Your task to perform on an android device: Open notification settings Image 0: 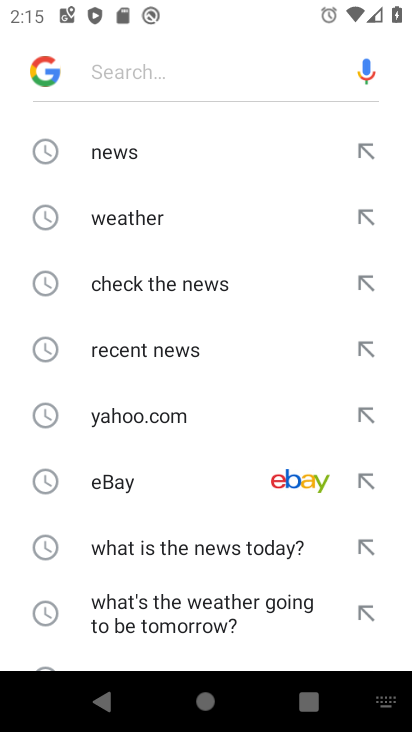
Step 0: press home button
Your task to perform on an android device: Open notification settings Image 1: 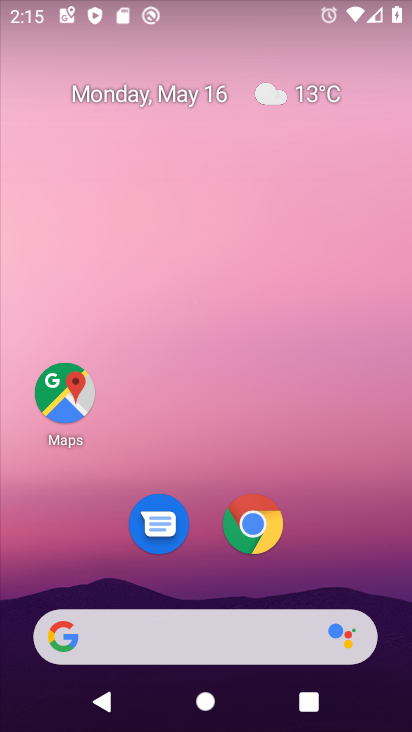
Step 1: drag from (220, 470) to (196, 43)
Your task to perform on an android device: Open notification settings Image 2: 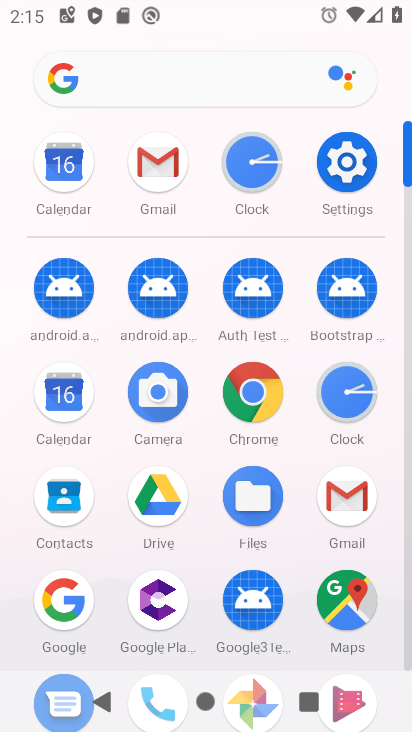
Step 2: click (348, 157)
Your task to perform on an android device: Open notification settings Image 3: 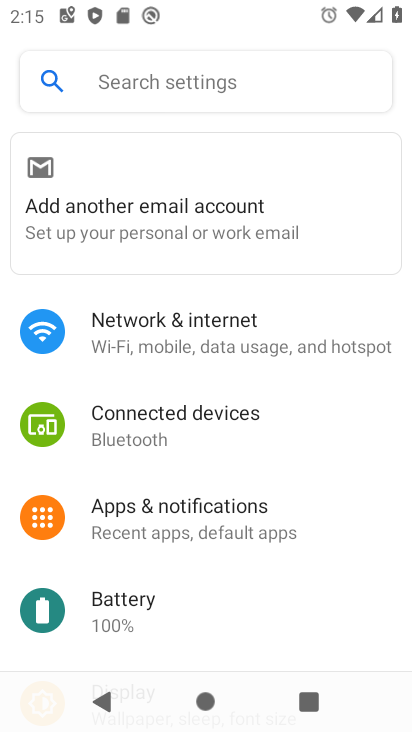
Step 3: click (221, 518)
Your task to perform on an android device: Open notification settings Image 4: 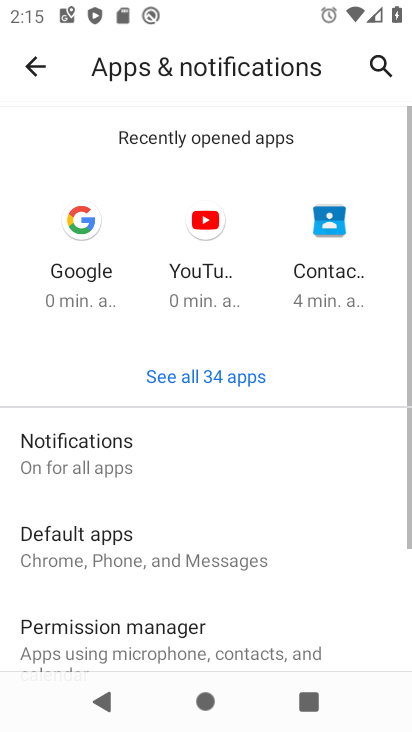
Step 4: click (207, 448)
Your task to perform on an android device: Open notification settings Image 5: 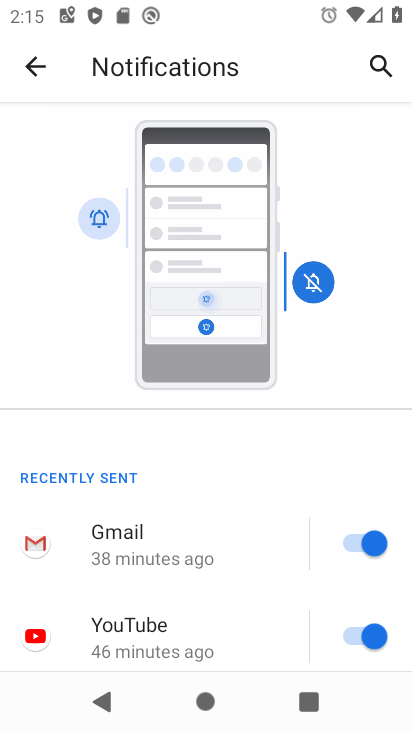
Step 5: task complete